Your task to perform on an android device: Go to Google maps Image 0: 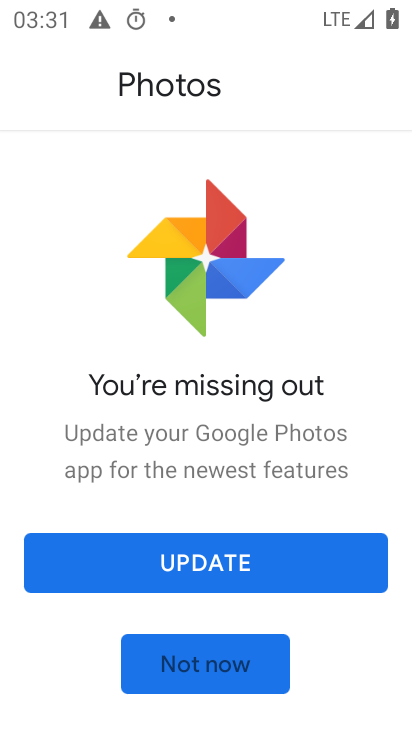
Step 0: press home button
Your task to perform on an android device: Go to Google maps Image 1: 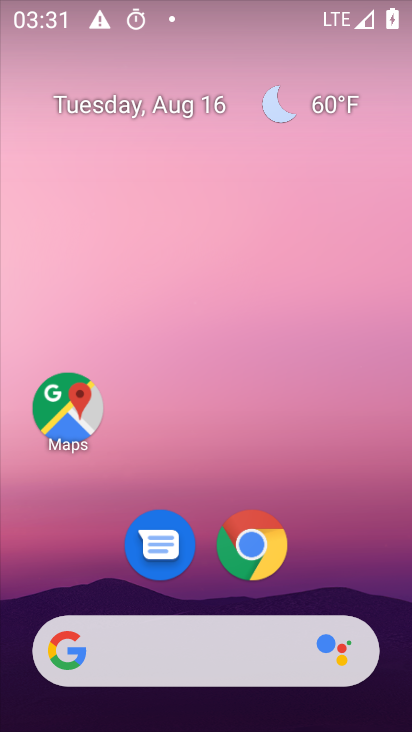
Step 1: click (71, 386)
Your task to perform on an android device: Go to Google maps Image 2: 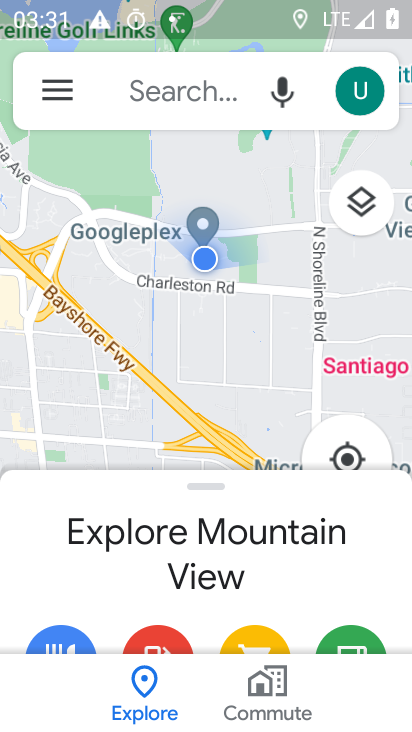
Step 2: task complete